Your task to perform on an android device: find snoozed emails in the gmail app Image 0: 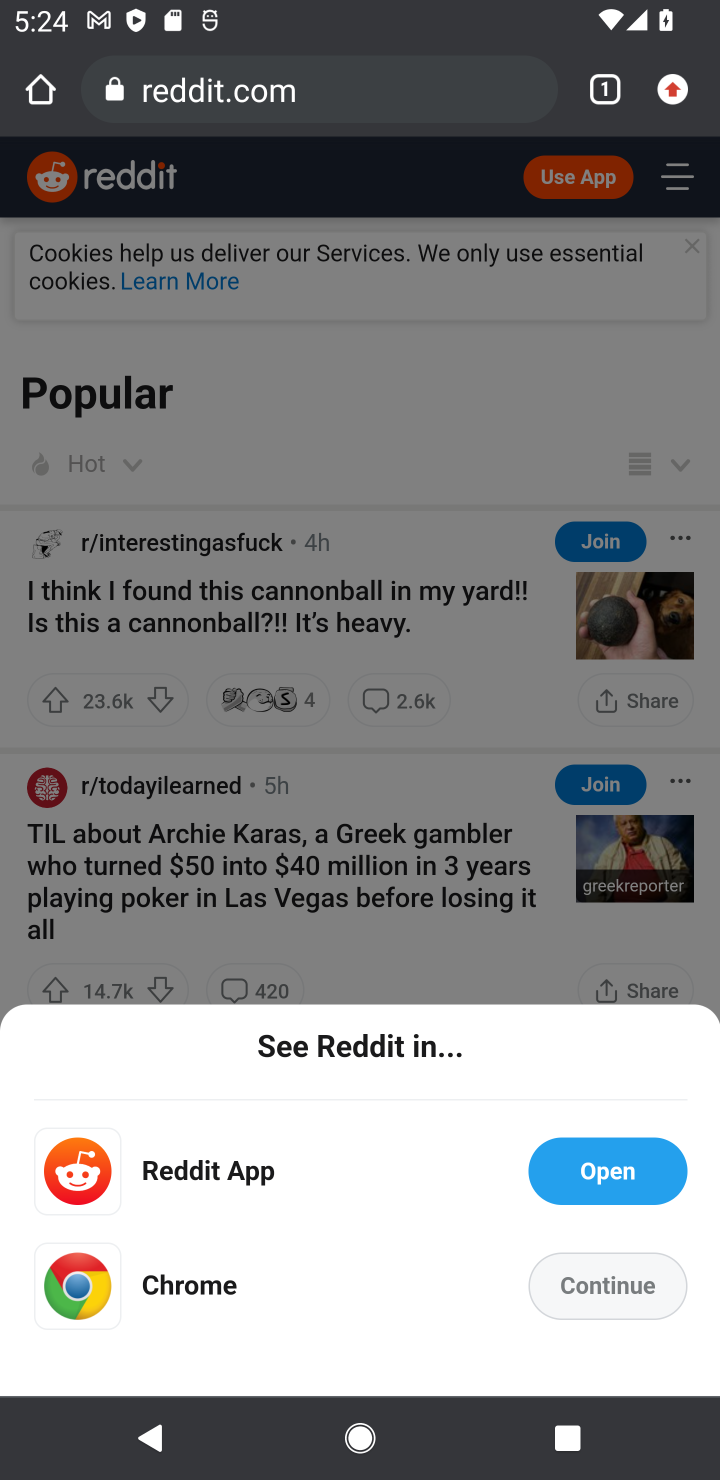
Step 0: press home button
Your task to perform on an android device: find snoozed emails in the gmail app Image 1: 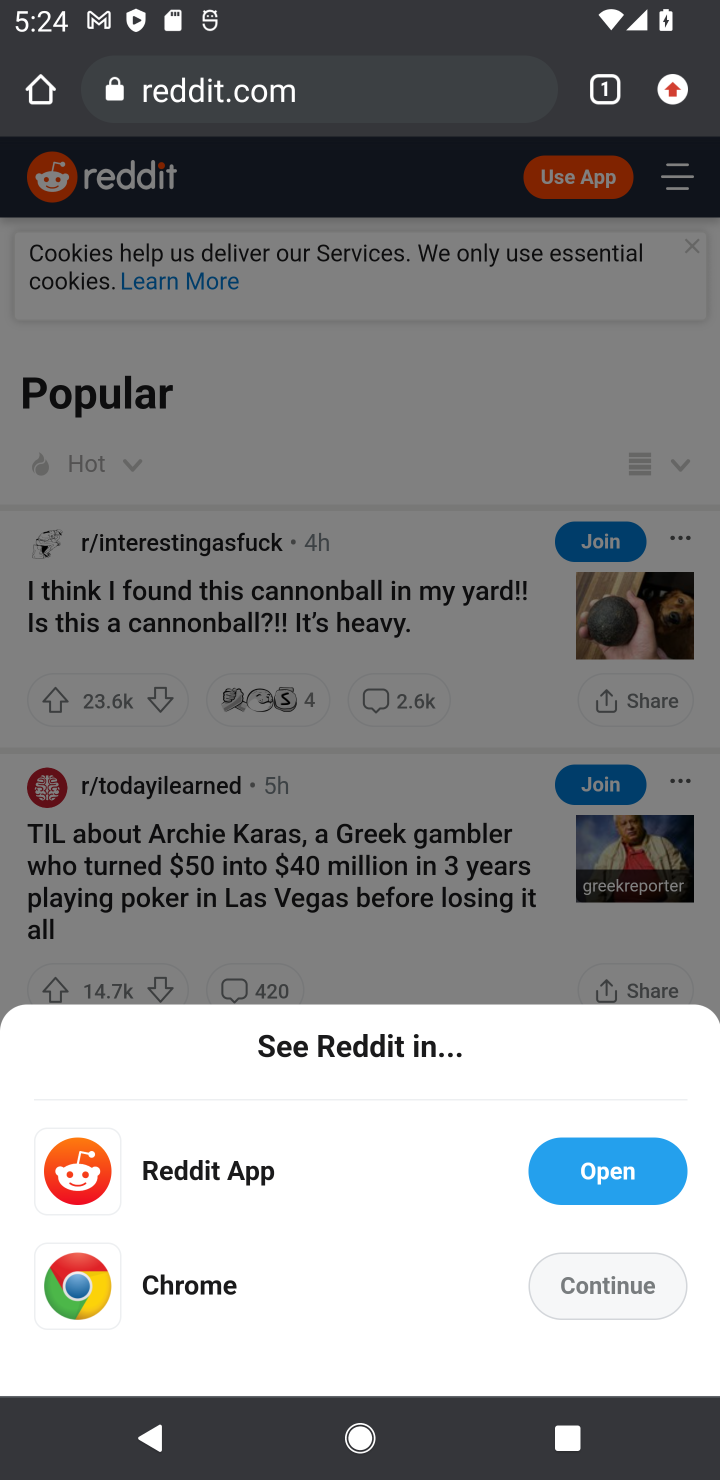
Step 1: press home button
Your task to perform on an android device: find snoozed emails in the gmail app Image 2: 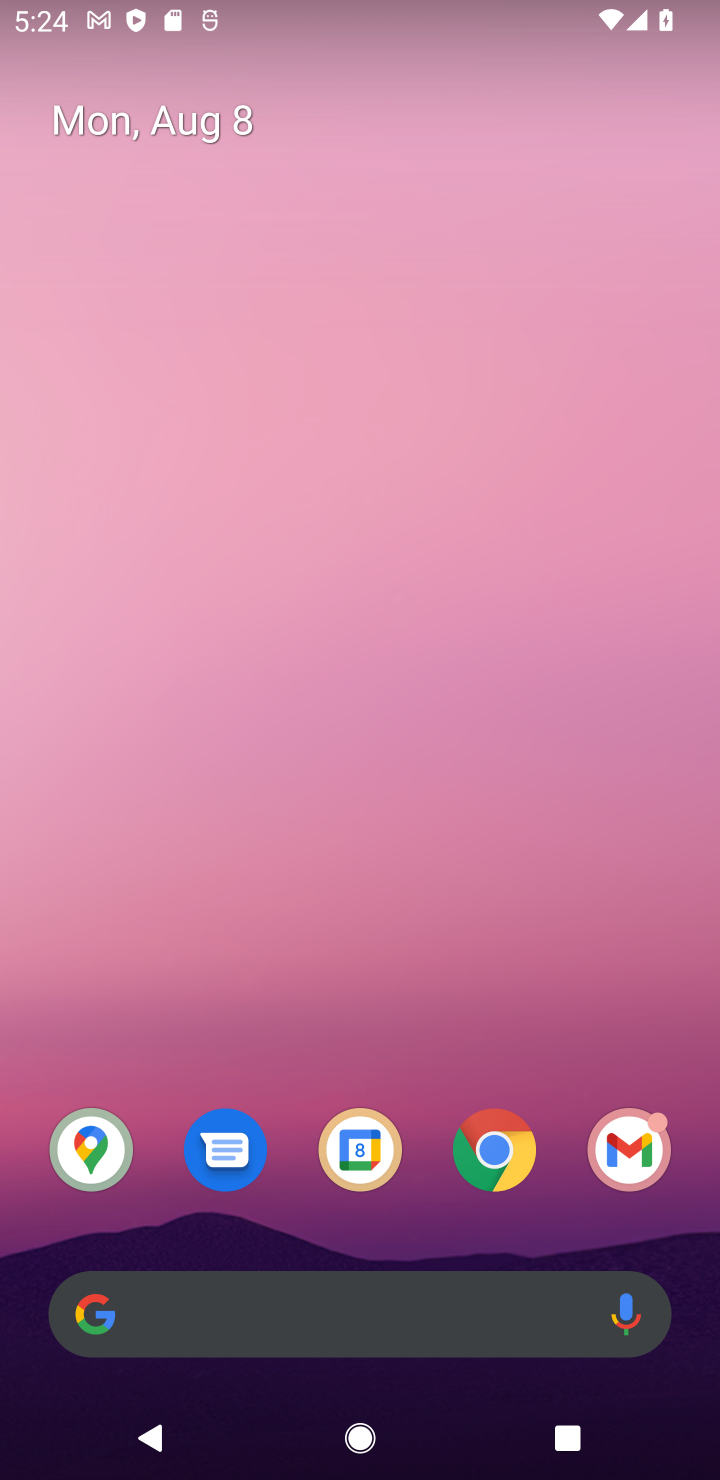
Step 2: click (628, 1153)
Your task to perform on an android device: find snoozed emails in the gmail app Image 3: 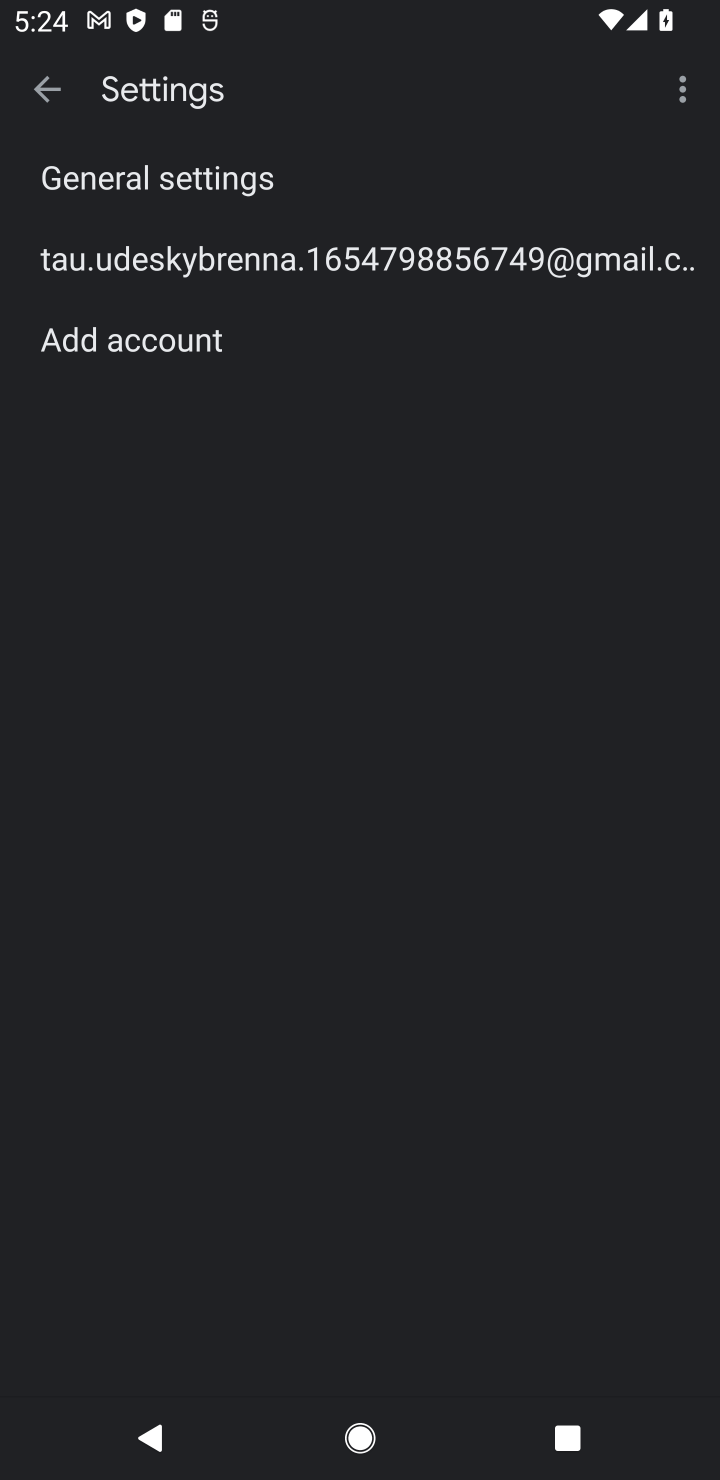
Step 3: click (40, 93)
Your task to perform on an android device: find snoozed emails in the gmail app Image 4: 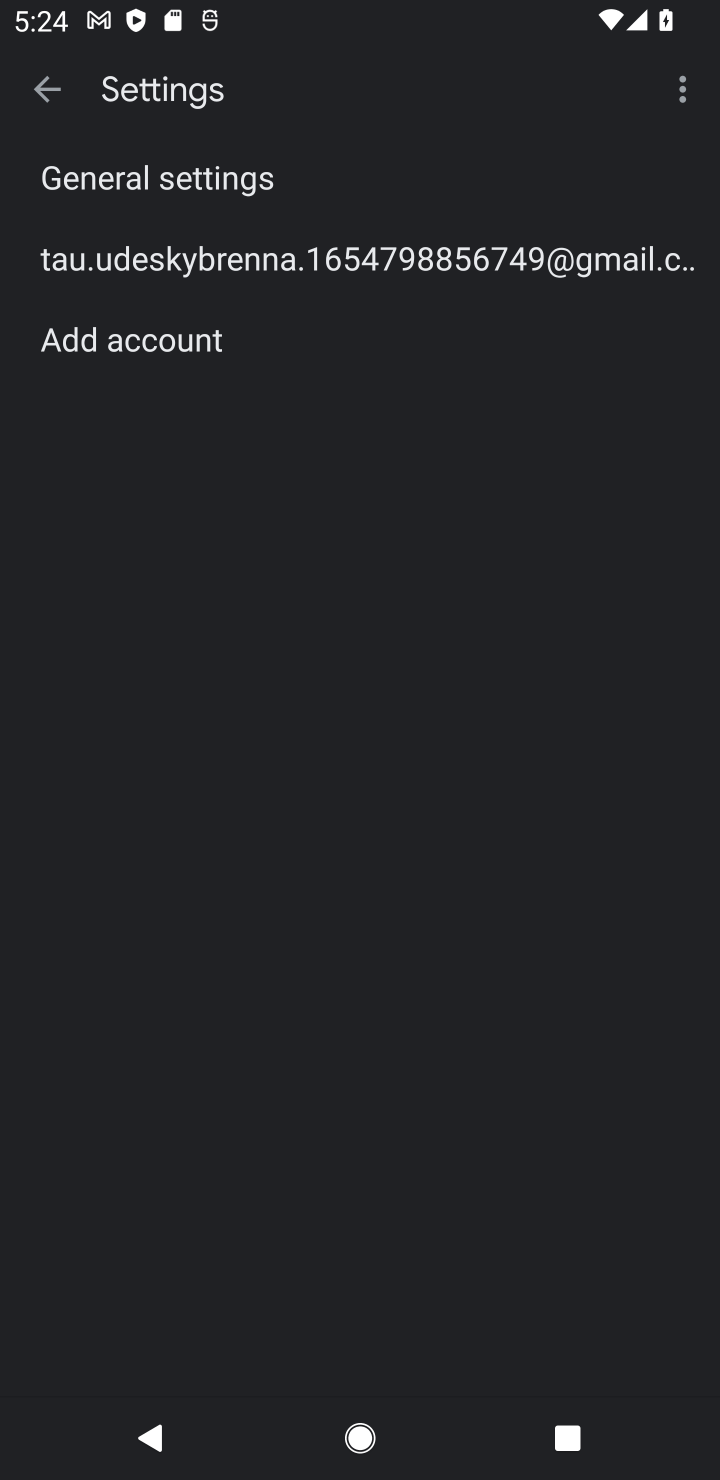
Step 4: click (40, 93)
Your task to perform on an android device: find snoozed emails in the gmail app Image 5: 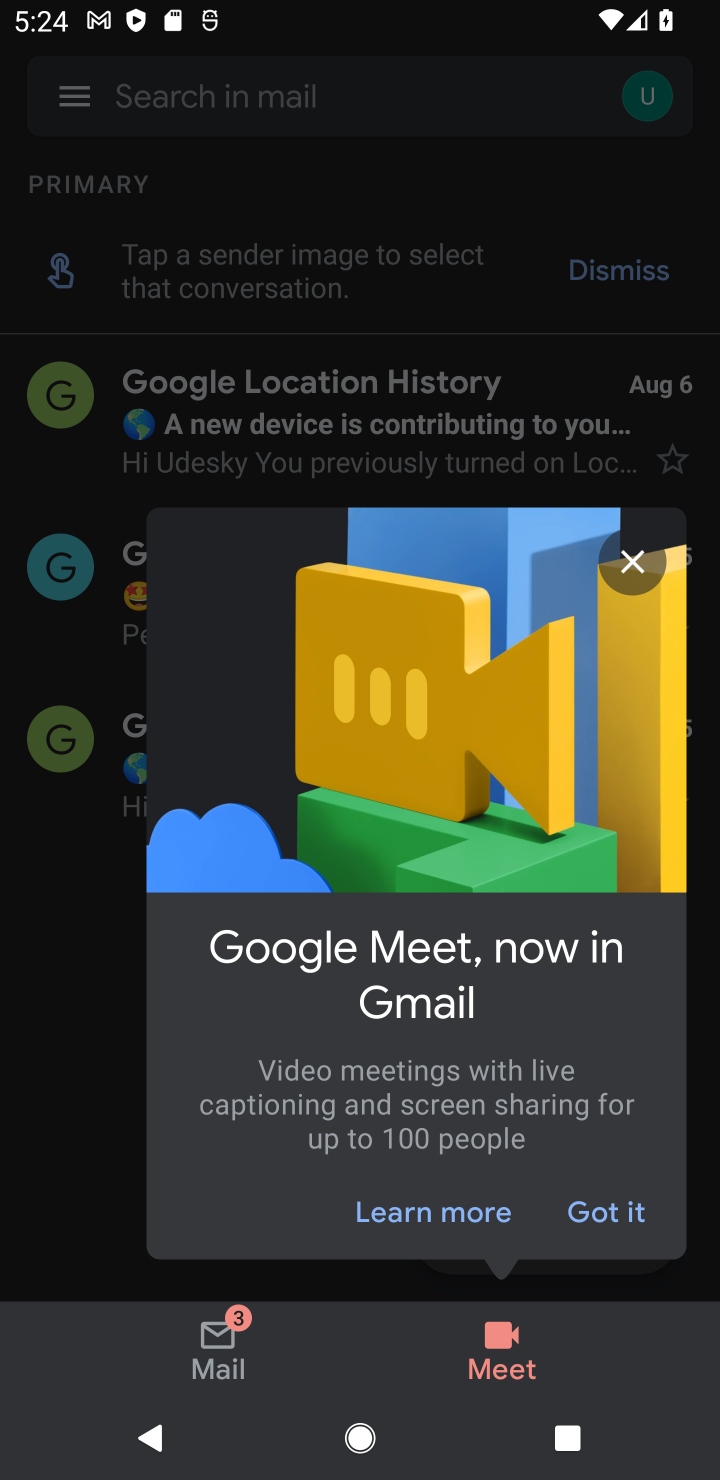
Step 5: click (638, 1207)
Your task to perform on an android device: find snoozed emails in the gmail app Image 6: 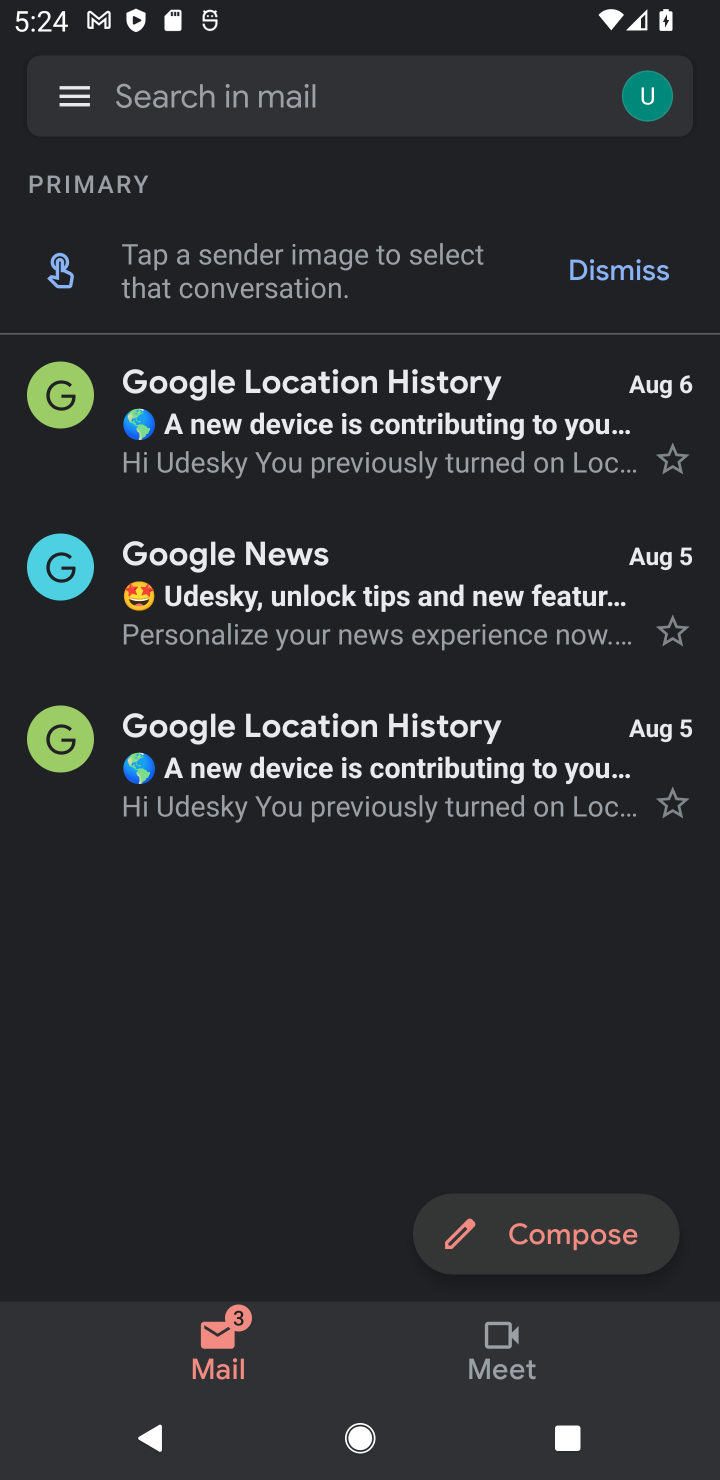
Step 6: click (78, 92)
Your task to perform on an android device: find snoozed emails in the gmail app Image 7: 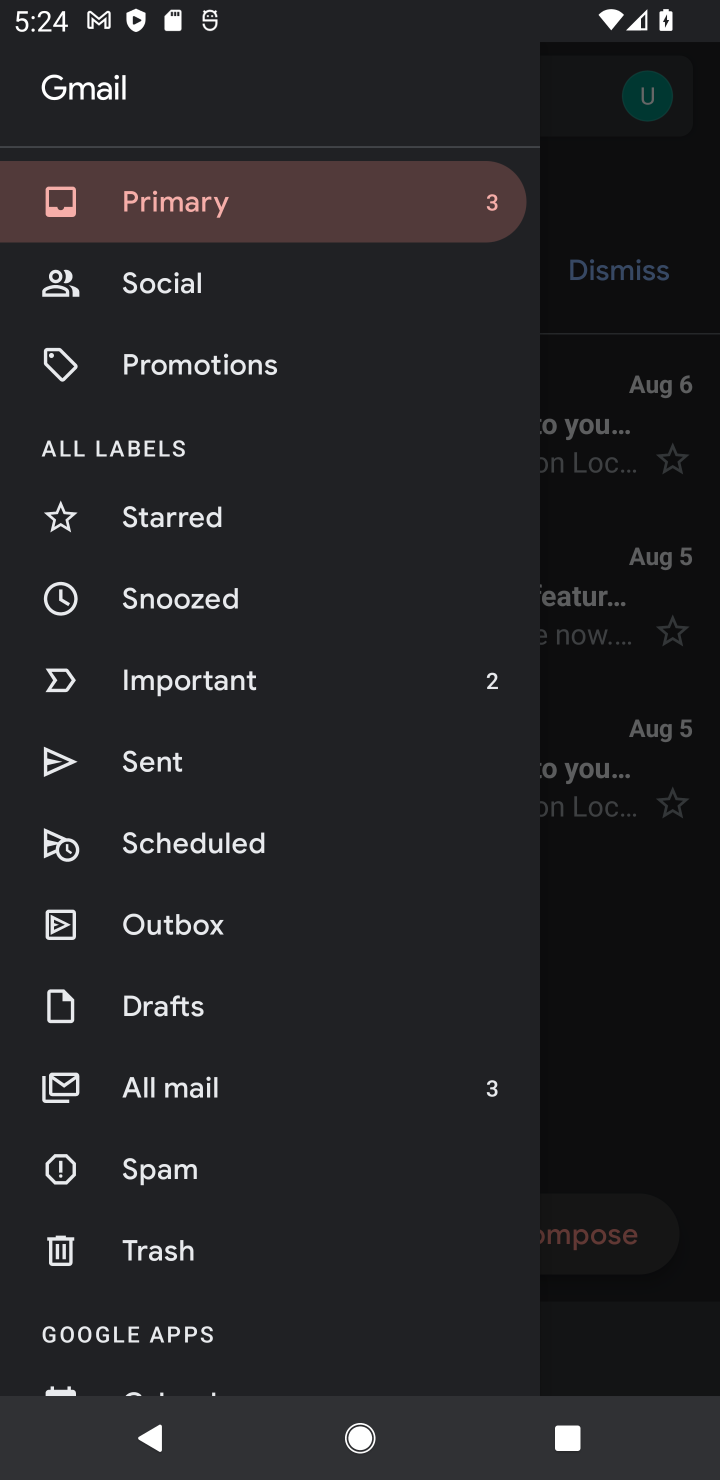
Step 7: click (155, 598)
Your task to perform on an android device: find snoozed emails in the gmail app Image 8: 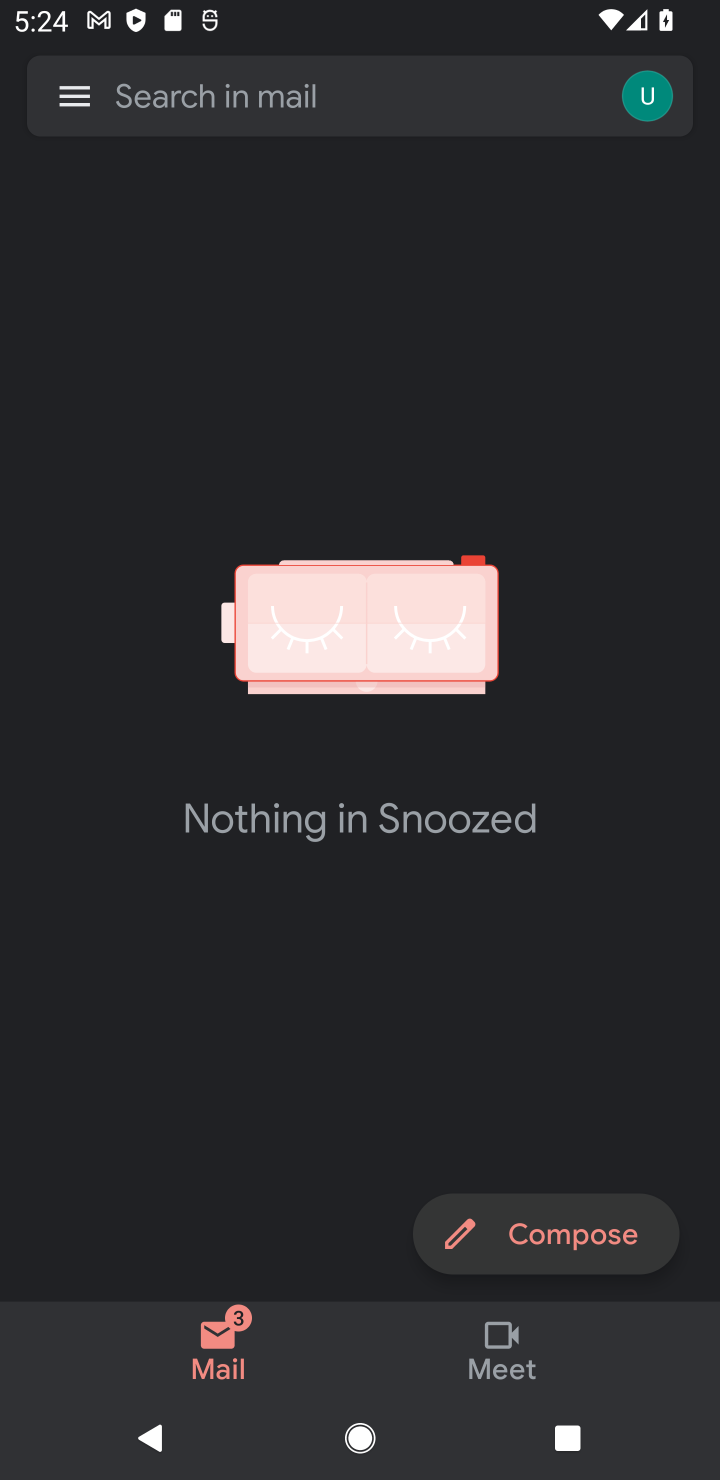
Step 8: task complete